Your task to perform on an android device: Open Google Image 0: 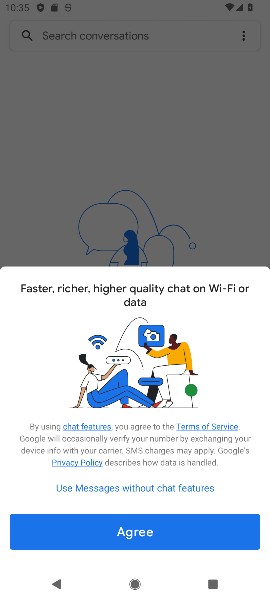
Step 0: press home button
Your task to perform on an android device: Open Google Image 1: 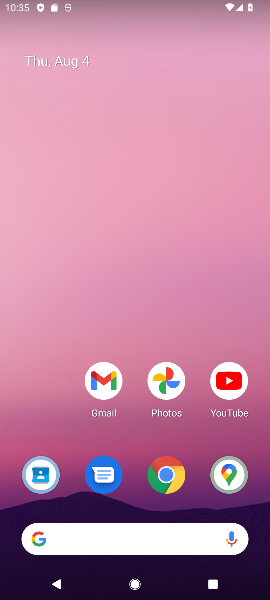
Step 1: drag from (123, 441) to (123, 8)
Your task to perform on an android device: Open Google Image 2: 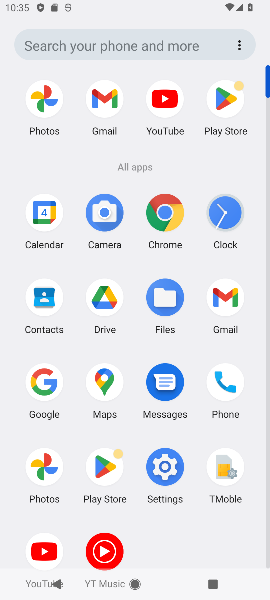
Step 2: click (37, 393)
Your task to perform on an android device: Open Google Image 3: 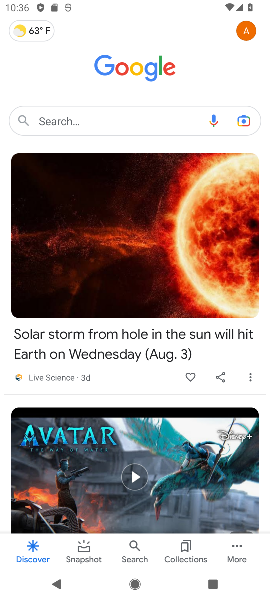
Step 3: task complete